Your task to perform on an android device: Open wifi settings Image 0: 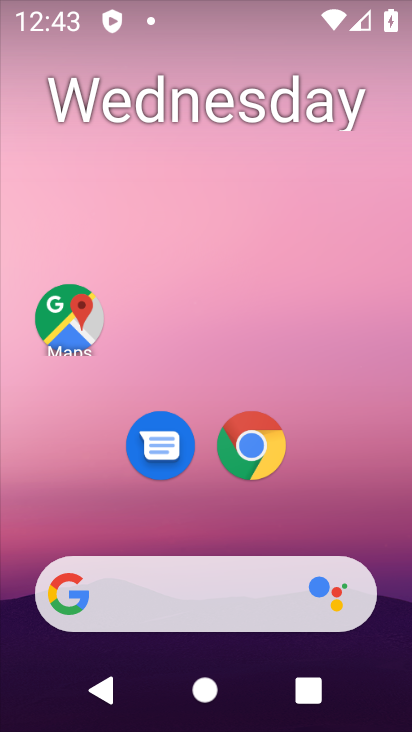
Step 0: drag from (401, 619) to (368, 27)
Your task to perform on an android device: Open wifi settings Image 1: 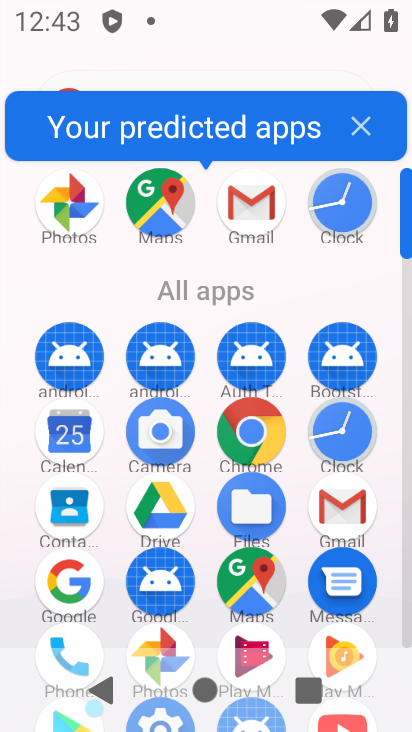
Step 1: click (403, 638)
Your task to perform on an android device: Open wifi settings Image 2: 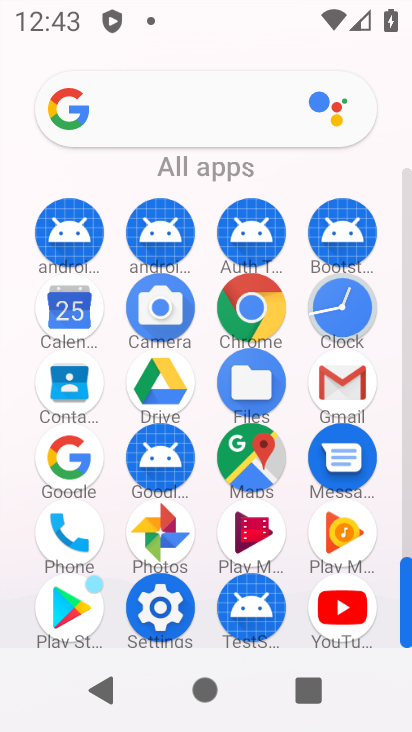
Step 2: click (173, 618)
Your task to perform on an android device: Open wifi settings Image 3: 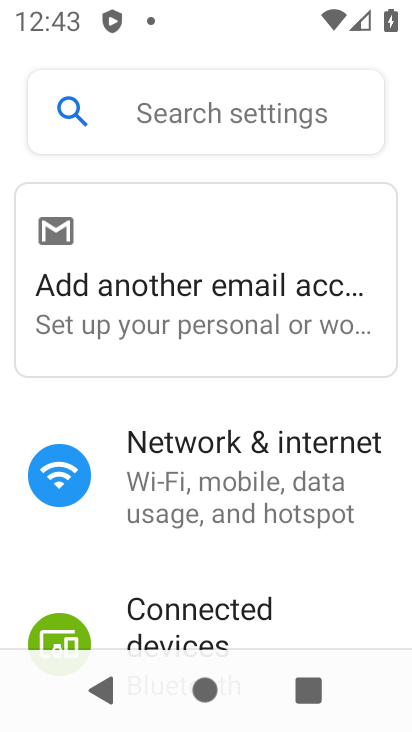
Step 3: click (253, 453)
Your task to perform on an android device: Open wifi settings Image 4: 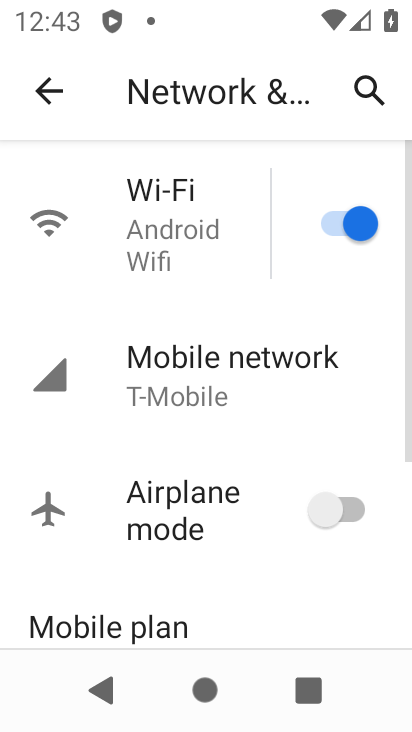
Step 4: click (162, 239)
Your task to perform on an android device: Open wifi settings Image 5: 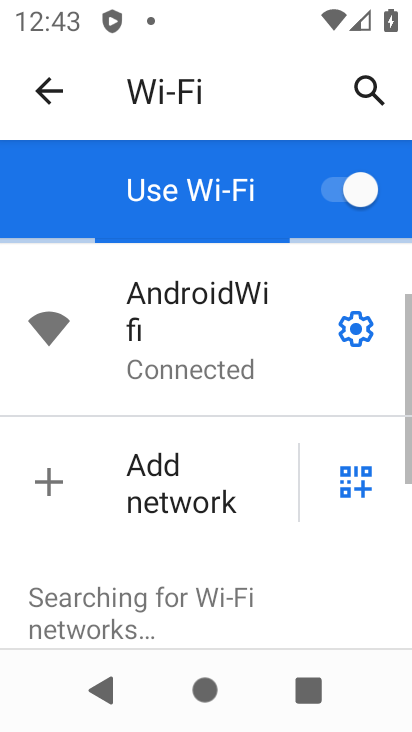
Step 5: task complete